Your task to perform on an android device: What's on my calendar tomorrow? Image 0: 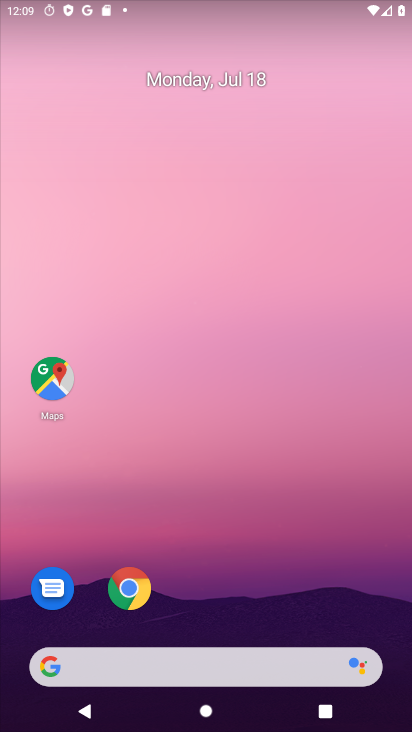
Step 0: drag from (246, 596) to (246, 179)
Your task to perform on an android device: What's on my calendar tomorrow? Image 1: 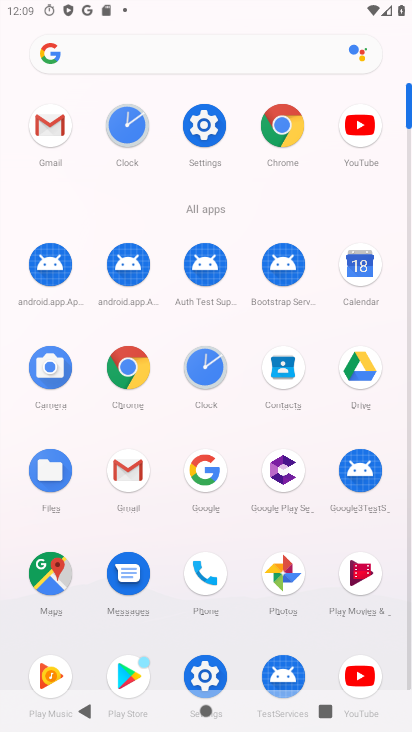
Step 1: click (356, 263)
Your task to perform on an android device: What's on my calendar tomorrow? Image 2: 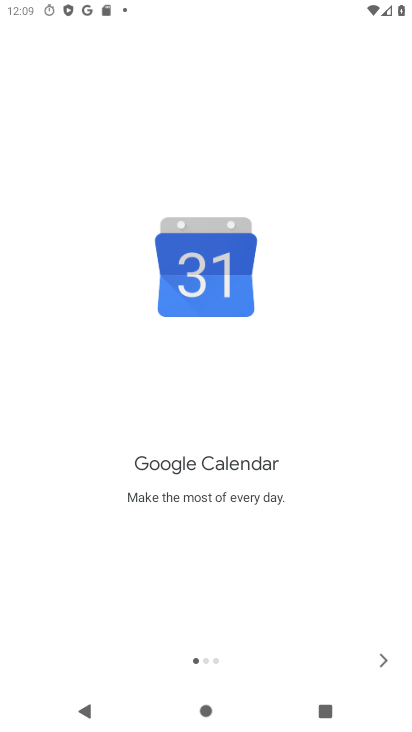
Step 2: click (385, 653)
Your task to perform on an android device: What's on my calendar tomorrow? Image 3: 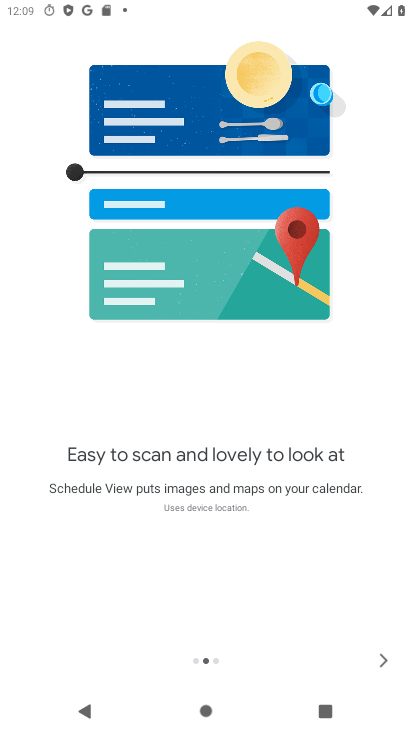
Step 3: click (385, 653)
Your task to perform on an android device: What's on my calendar tomorrow? Image 4: 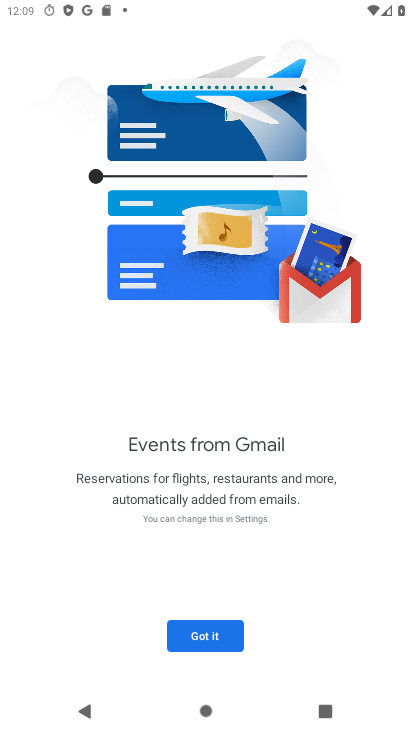
Step 4: click (186, 624)
Your task to perform on an android device: What's on my calendar tomorrow? Image 5: 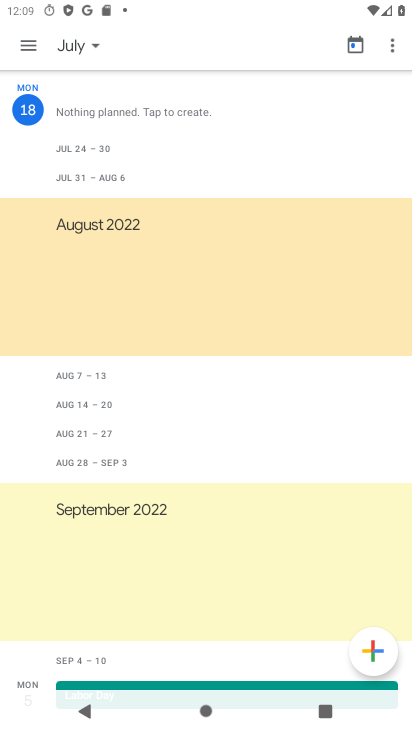
Step 5: click (87, 45)
Your task to perform on an android device: What's on my calendar tomorrow? Image 6: 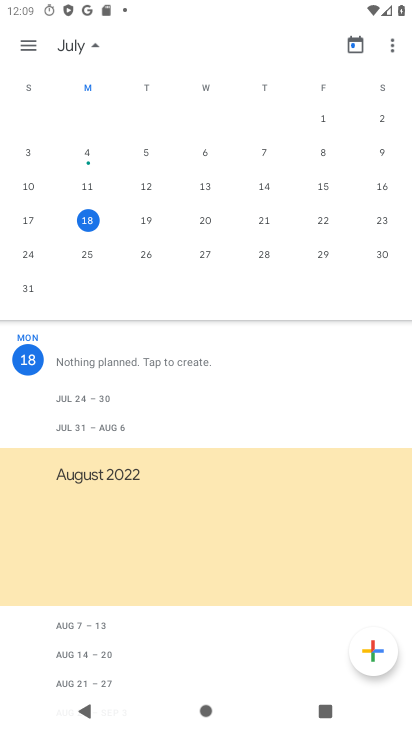
Step 6: click (147, 217)
Your task to perform on an android device: What's on my calendar tomorrow? Image 7: 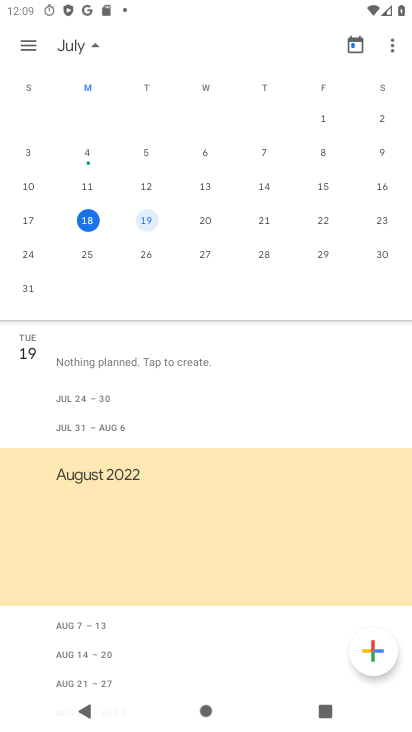
Step 7: task complete